Your task to perform on an android device: open wifi settings Image 0: 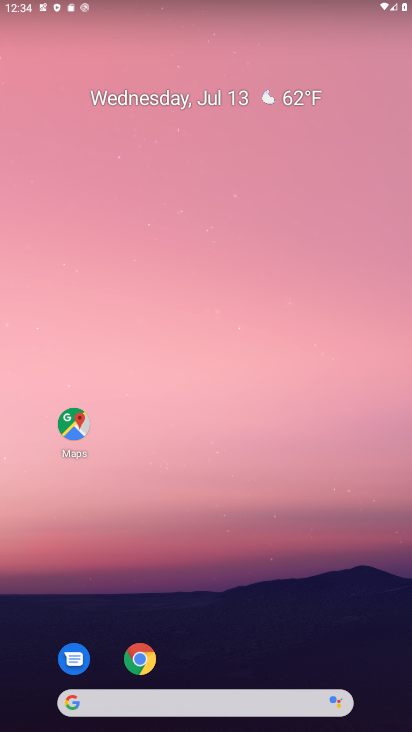
Step 0: drag from (235, 730) to (235, 126)
Your task to perform on an android device: open wifi settings Image 1: 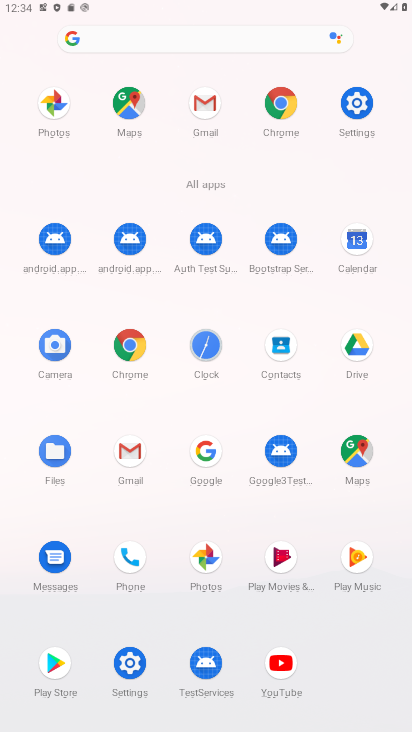
Step 1: click (361, 102)
Your task to perform on an android device: open wifi settings Image 2: 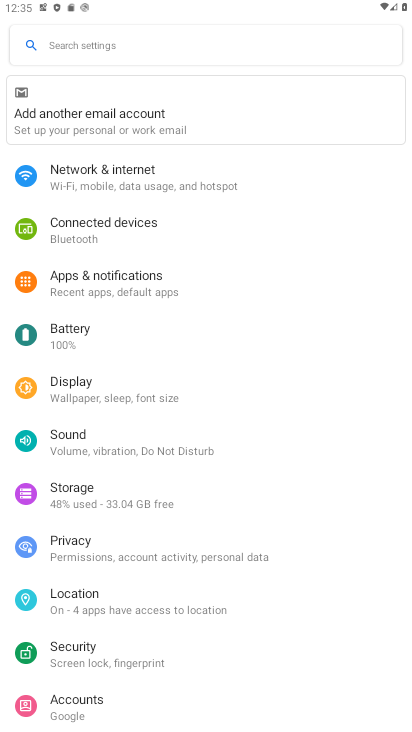
Step 2: click (88, 178)
Your task to perform on an android device: open wifi settings Image 3: 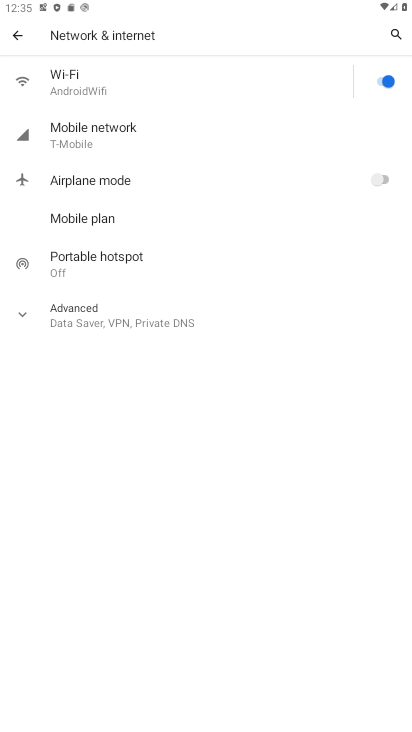
Step 3: click (65, 74)
Your task to perform on an android device: open wifi settings Image 4: 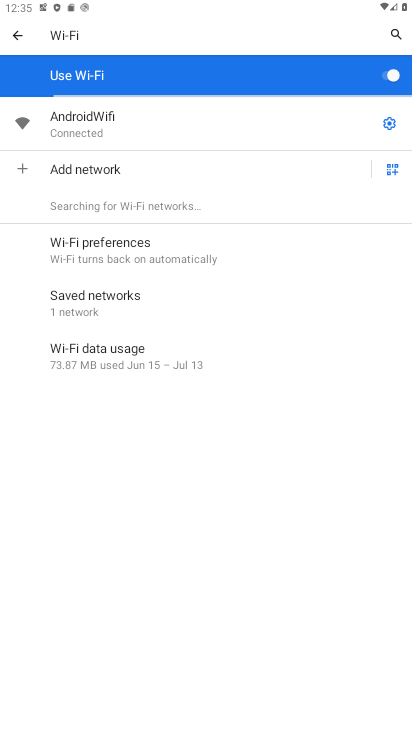
Step 4: task complete